Your task to perform on an android device: Open CNN.com Image 0: 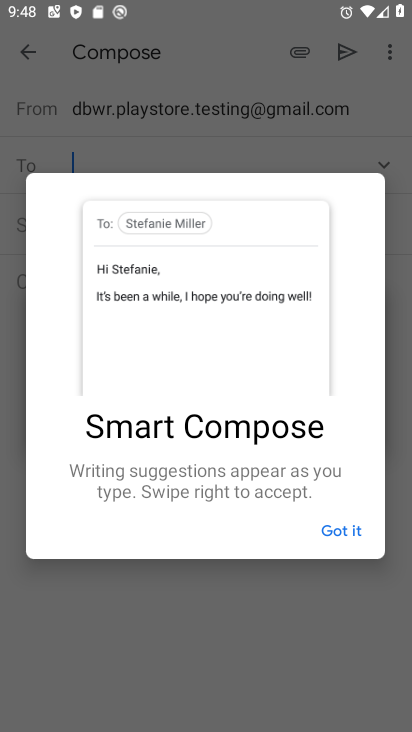
Step 0: click (344, 535)
Your task to perform on an android device: Open CNN.com Image 1: 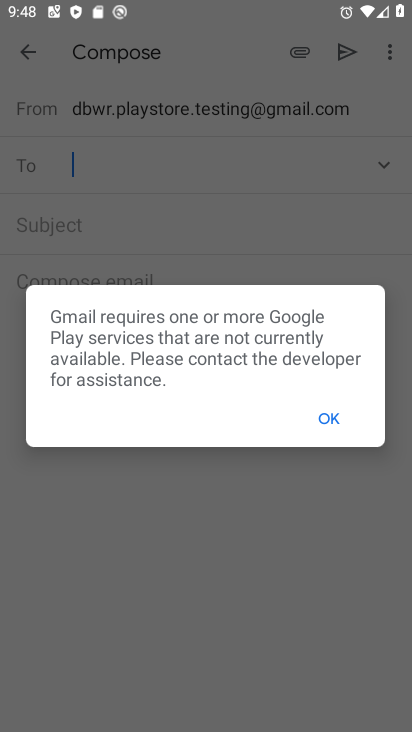
Step 1: click (334, 415)
Your task to perform on an android device: Open CNN.com Image 2: 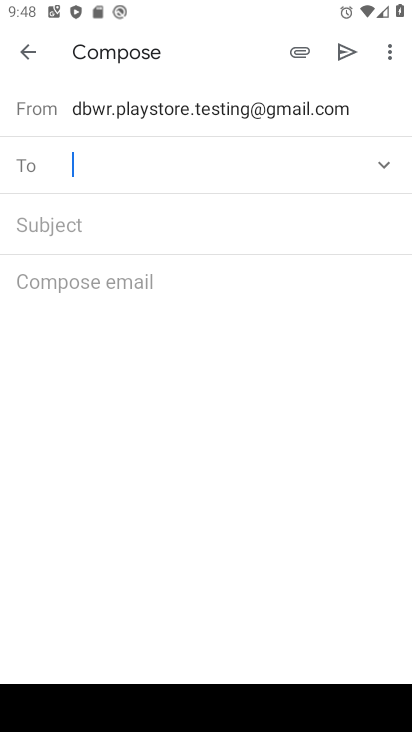
Step 2: press home button
Your task to perform on an android device: Open CNN.com Image 3: 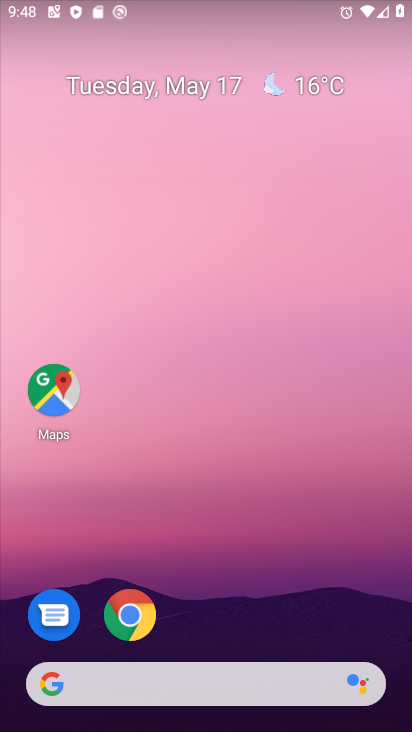
Step 3: click (126, 614)
Your task to perform on an android device: Open CNN.com Image 4: 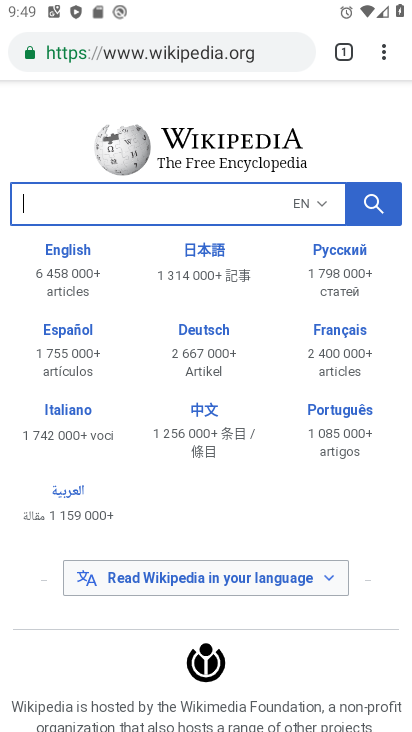
Step 4: click (245, 50)
Your task to perform on an android device: Open CNN.com Image 5: 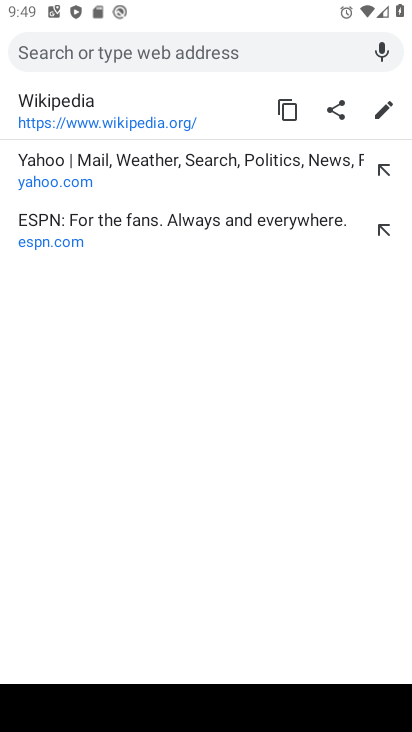
Step 5: type "cnn.com"
Your task to perform on an android device: Open CNN.com Image 6: 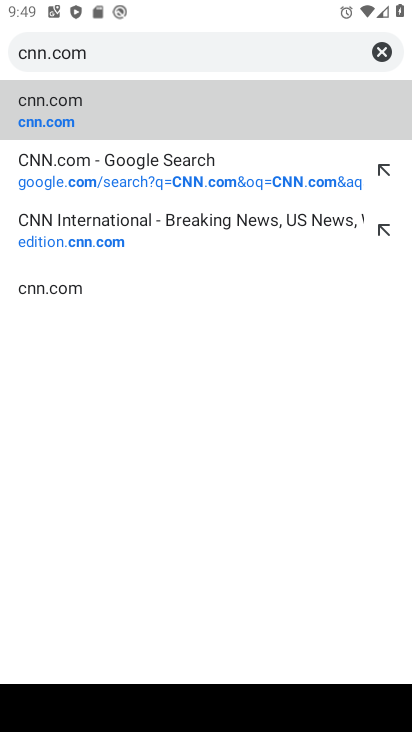
Step 6: click (183, 94)
Your task to perform on an android device: Open CNN.com Image 7: 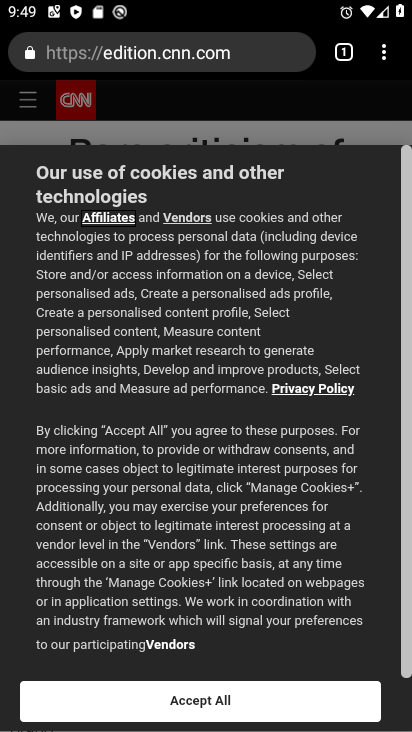
Step 7: task complete